Your task to perform on an android device: Open wifi settings Image 0: 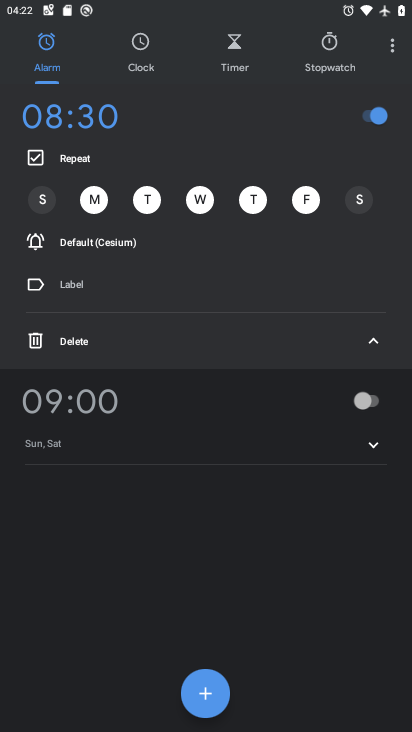
Step 0: press home button
Your task to perform on an android device: Open wifi settings Image 1: 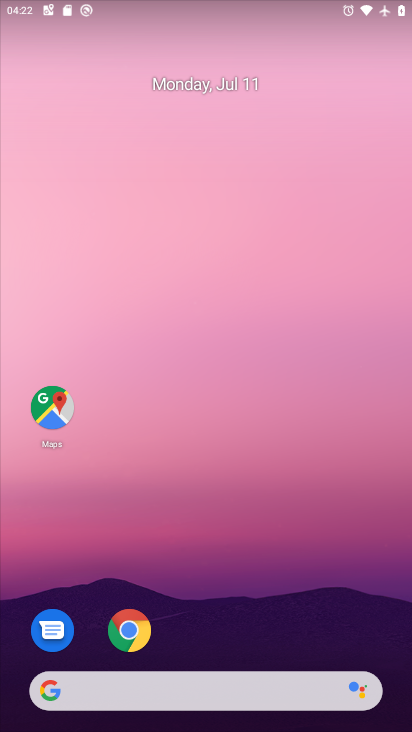
Step 1: drag from (250, 631) to (284, 290)
Your task to perform on an android device: Open wifi settings Image 2: 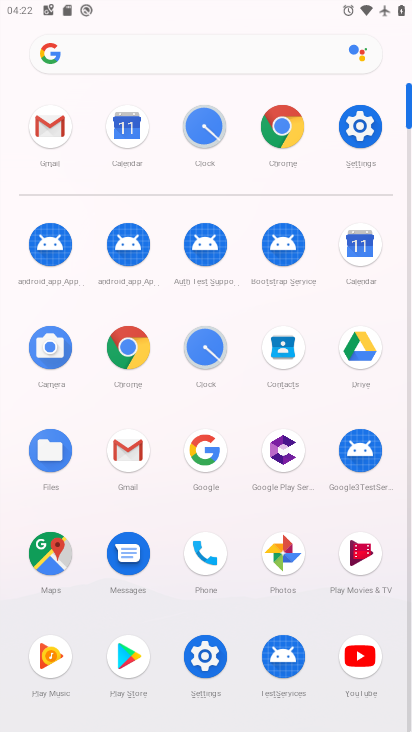
Step 2: click (354, 101)
Your task to perform on an android device: Open wifi settings Image 3: 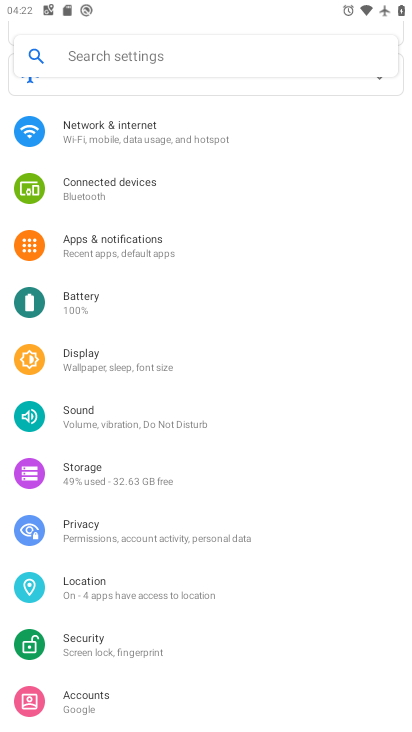
Step 3: click (250, 135)
Your task to perform on an android device: Open wifi settings Image 4: 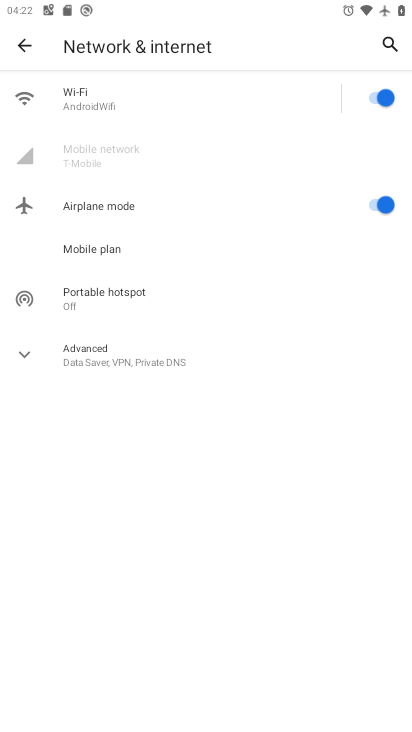
Step 4: task complete